Your task to perform on an android device: Set the phone to "Do not disturb". Image 0: 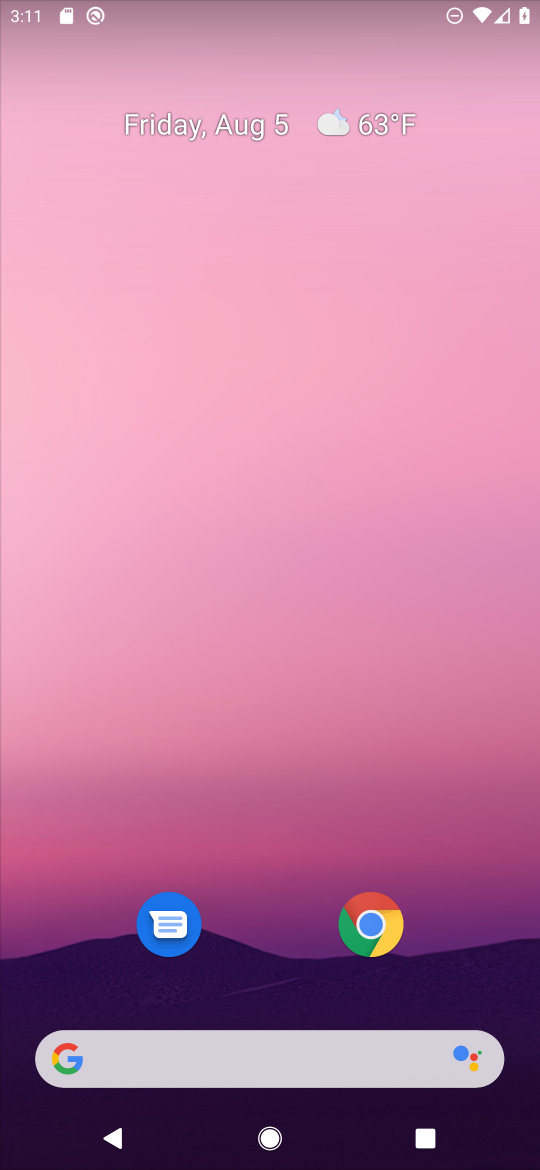
Step 0: drag from (301, 16) to (346, 679)
Your task to perform on an android device: Set the phone to "Do not disturb". Image 1: 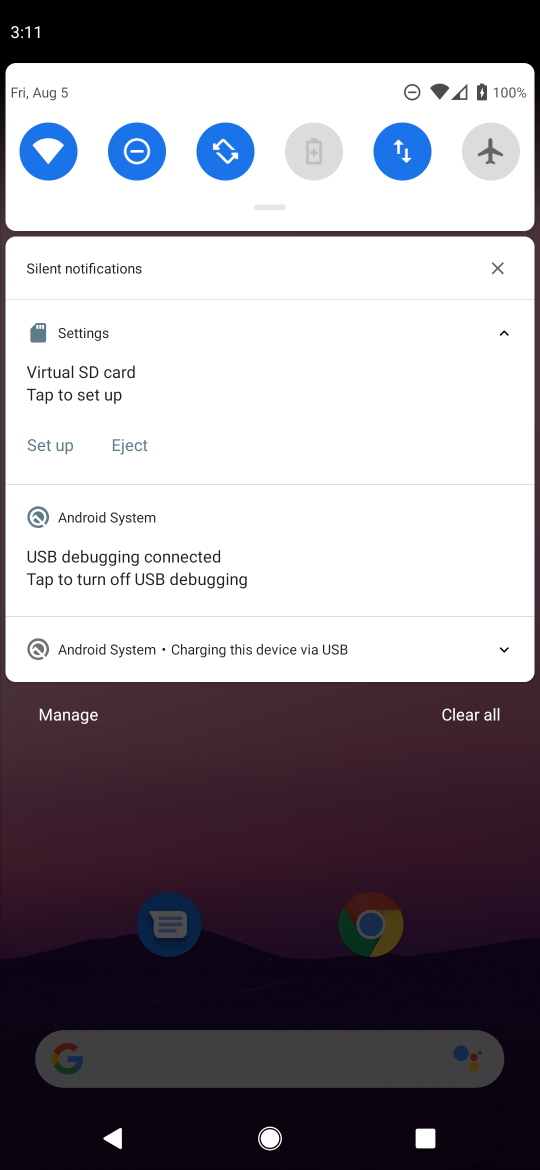
Step 1: task complete